Your task to perform on an android device: Go to ESPN.com Image 0: 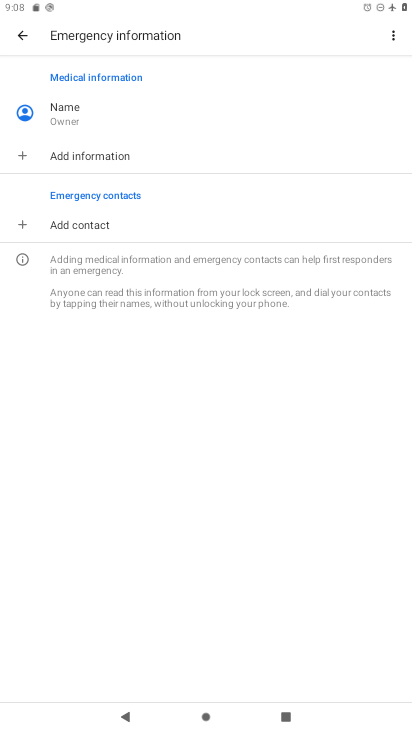
Step 0: press home button
Your task to perform on an android device: Go to ESPN.com Image 1: 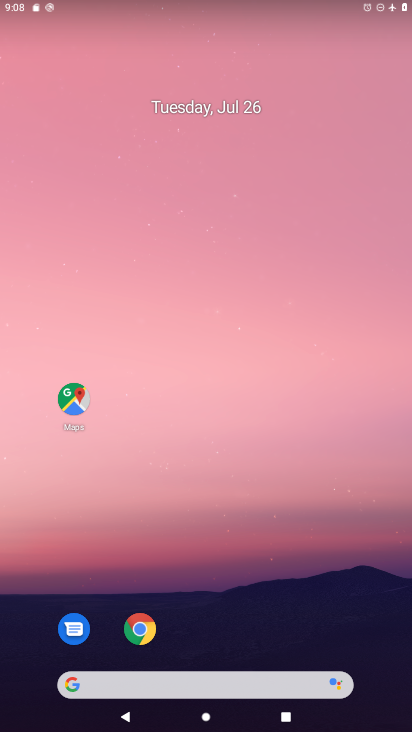
Step 1: click (134, 629)
Your task to perform on an android device: Go to ESPN.com Image 2: 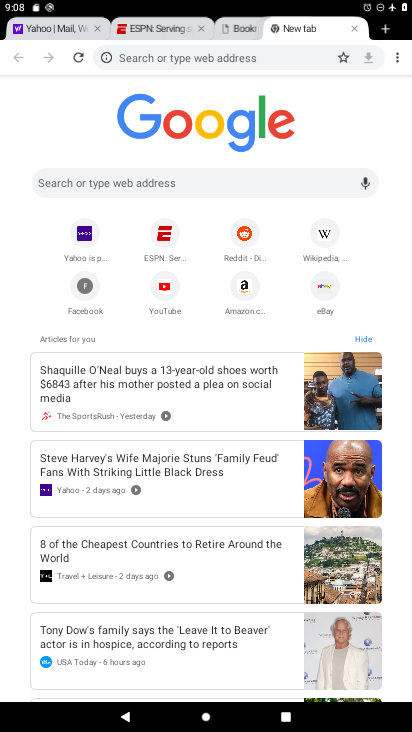
Step 2: click (155, 237)
Your task to perform on an android device: Go to ESPN.com Image 3: 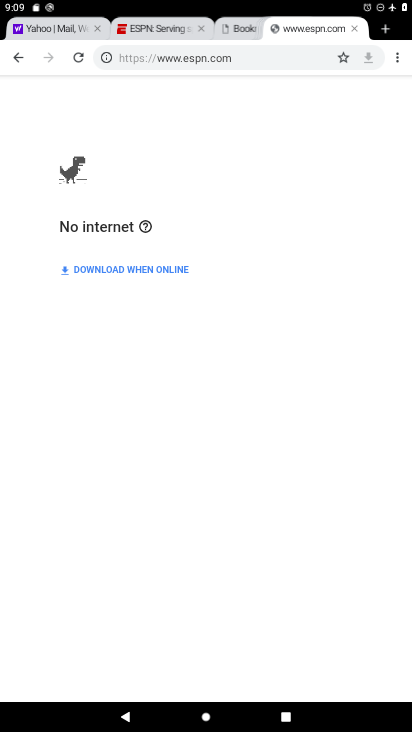
Step 3: task complete